Your task to perform on an android device: turn on notifications settings in the gmail app Image 0: 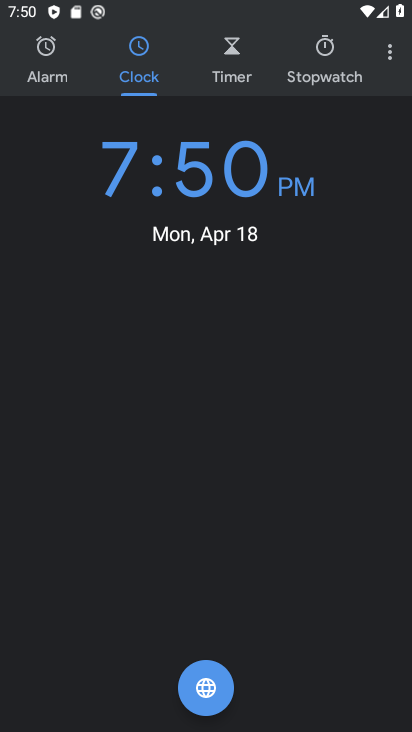
Step 0: press home button
Your task to perform on an android device: turn on notifications settings in the gmail app Image 1: 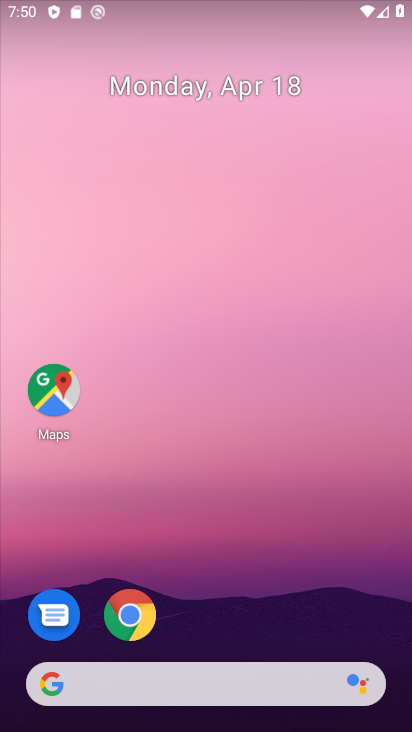
Step 1: drag from (276, 544) to (328, 56)
Your task to perform on an android device: turn on notifications settings in the gmail app Image 2: 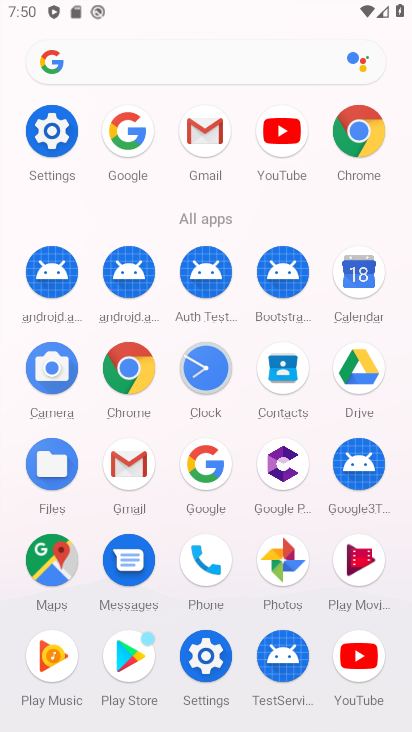
Step 2: click (205, 127)
Your task to perform on an android device: turn on notifications settings in the gmail app Image 3: 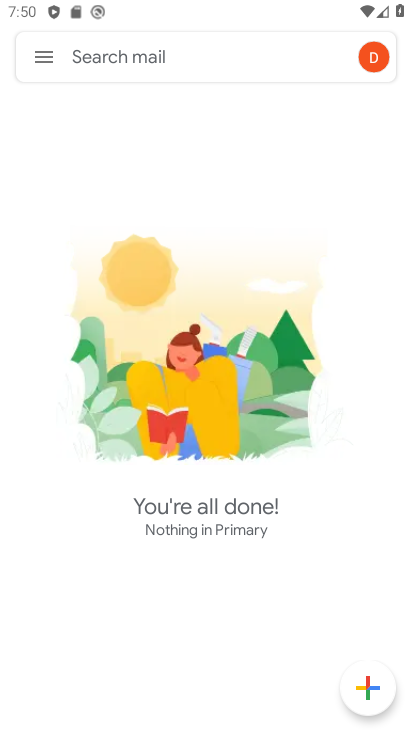
Step 3: click (41, 48)
Your task to perform on an android device: turn on notifications settings in the gmail app Image 4: 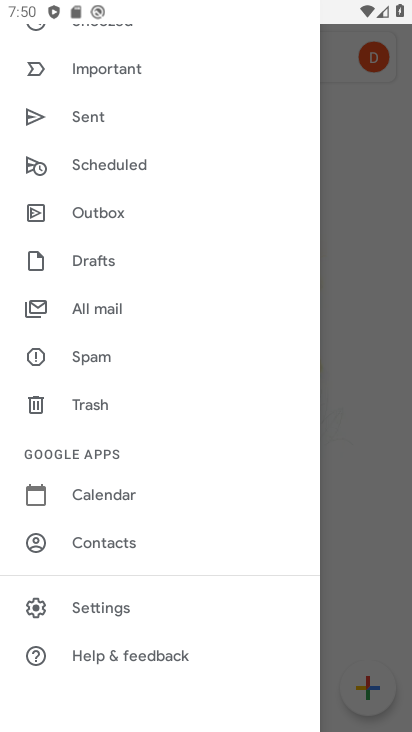
Step 4: click (102, 603)
Your task to perform on an android device: turn on notifications settings in the gmail app Image 5: 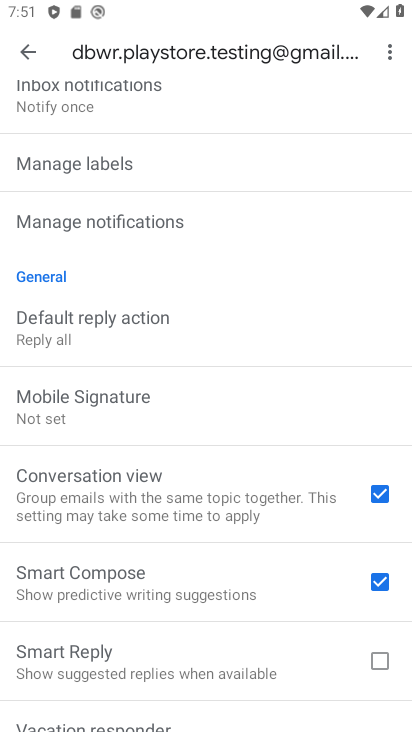
Step 5: drag from (226, 448) to (214, 511)
Your task to perform on an android device: turn on notifications settings in the gmail app Image 6: 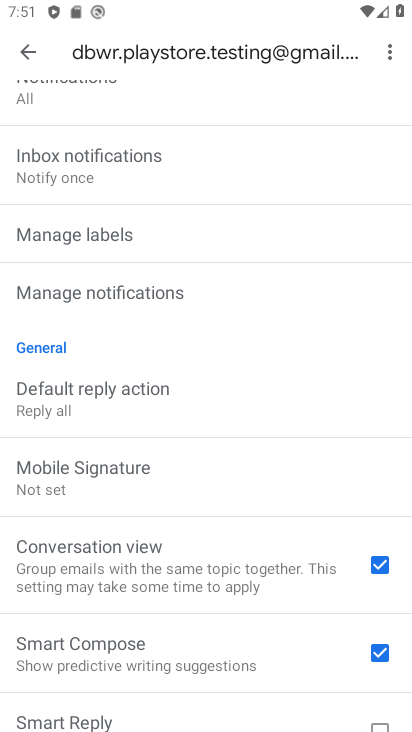
Step 6: click (211, 294)
Your task to perform on an android device: turn on notifications settings in the gmail app Image 7: 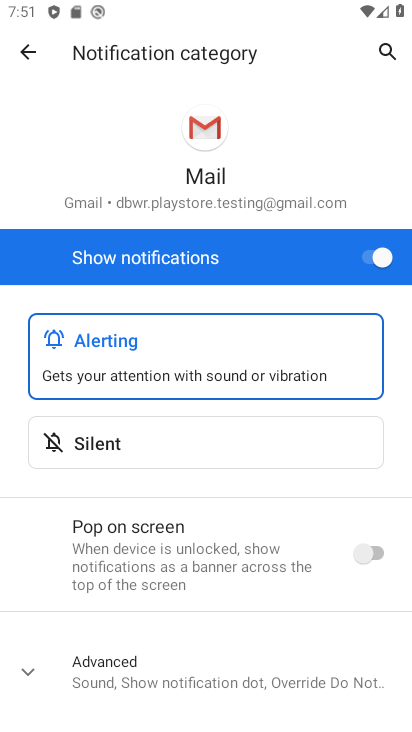
Step 7: task complete